Your task to perform on an android device: Search for the best selling book on Amazon. Image 0: 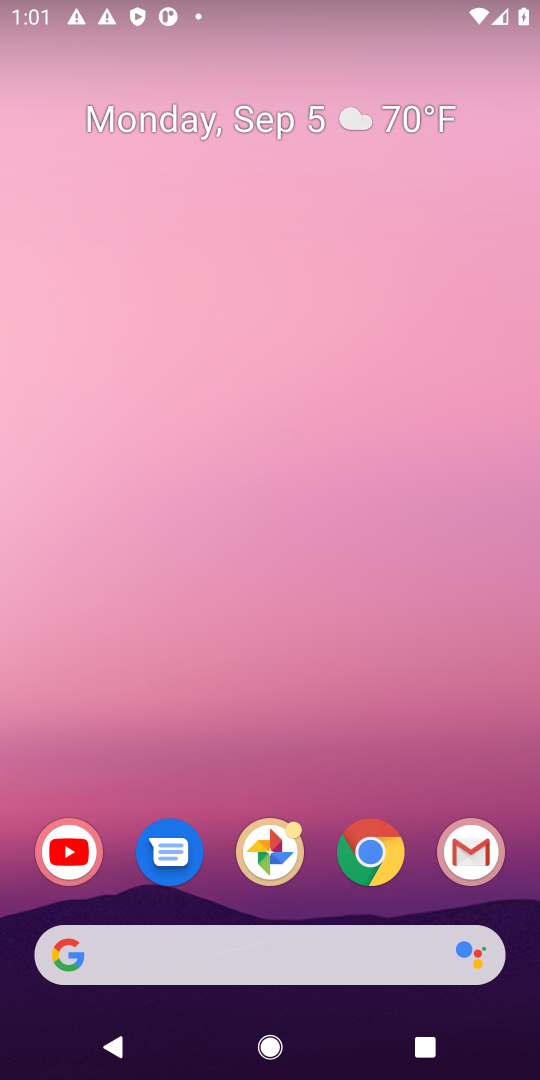
Step 0: click (375, 850)
Your task to perform on an android device: Search for the best selling book on Amazon. Image 1: 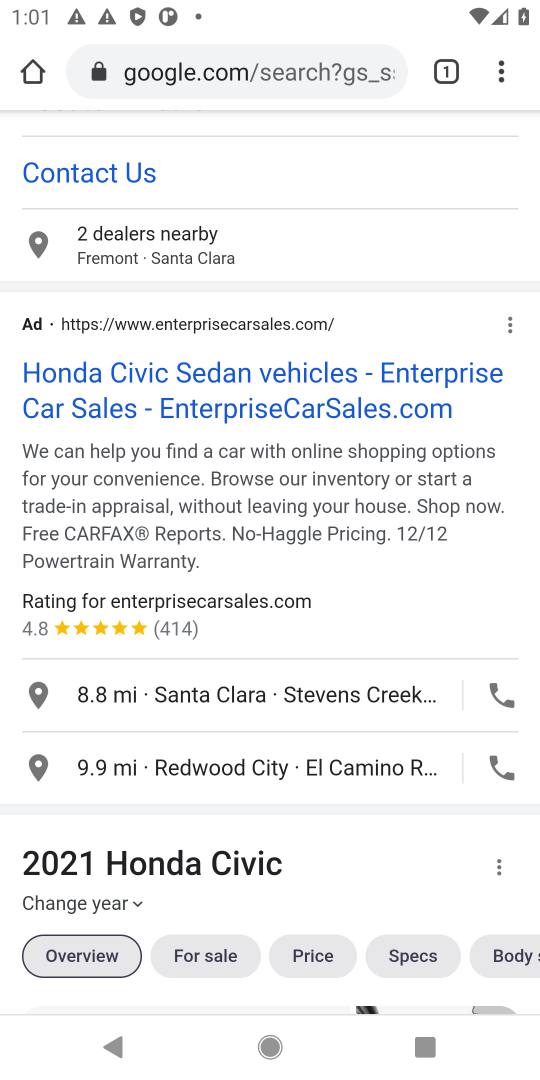
Step 1: click (373, 45)
Your task to perform on an android device: Search for the best selling book on Amazon. Image 2: 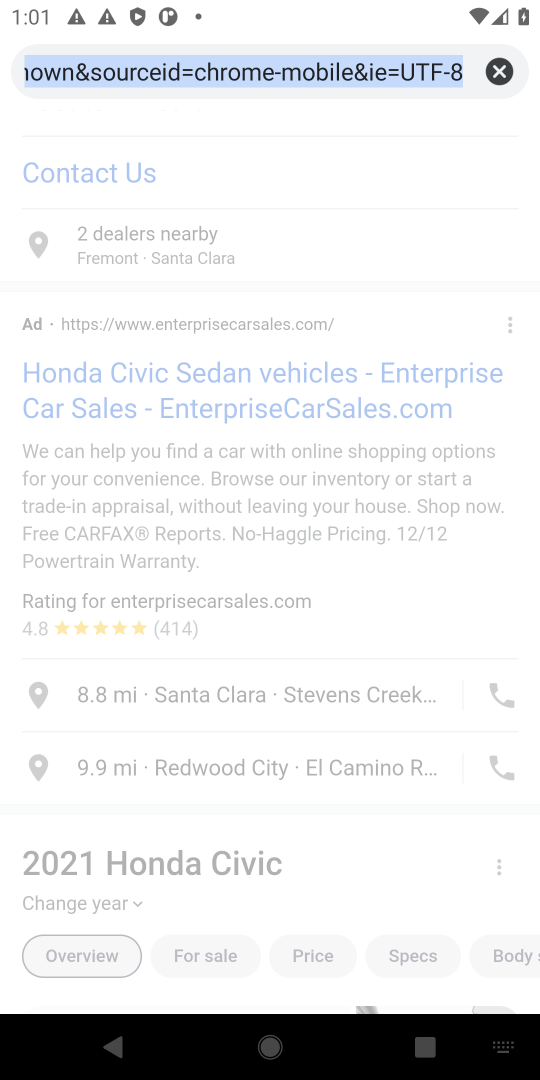
Step 2: click (499, 69)
Your task to perform on an android device: Search for the best selling book on Amazon. Image 3: 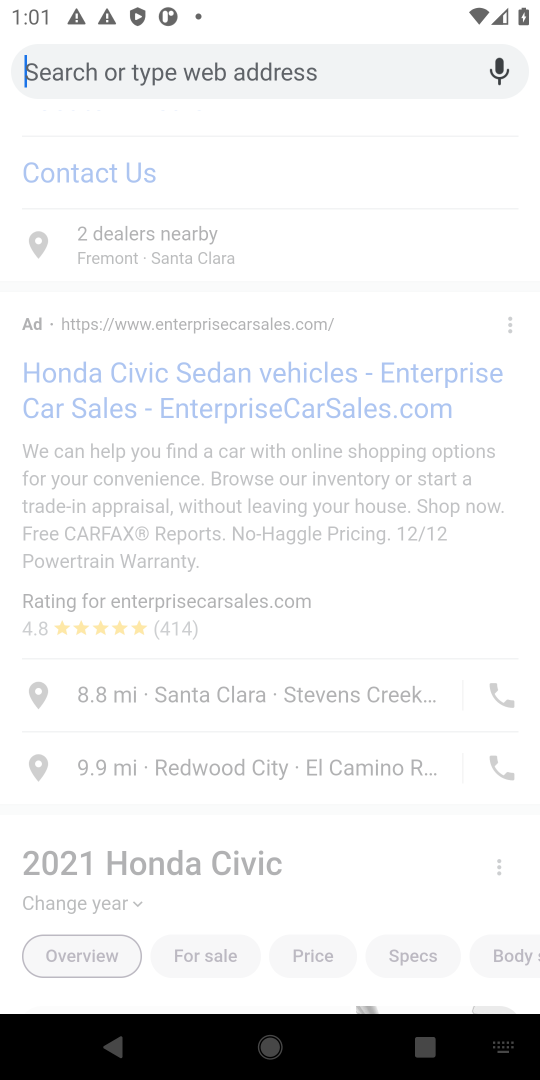
Step 3: type "Amazon"
Your task to perform on an android device: Search for the best selling book on Amazon. Image 4: 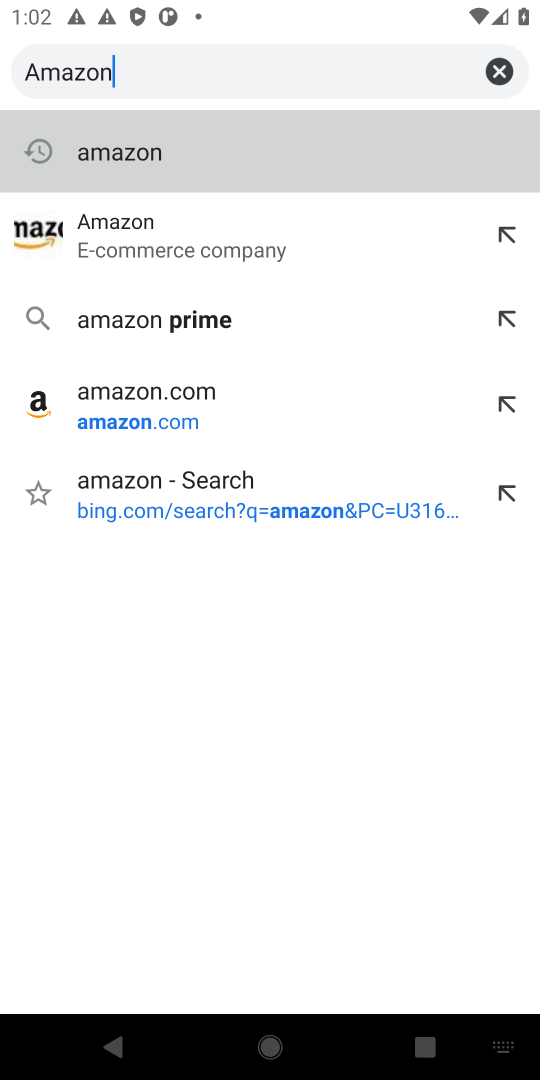
Step 4: click (122, 216)
Your task to perform on an android device: Search for the best selling book on Amazon. Image 5: 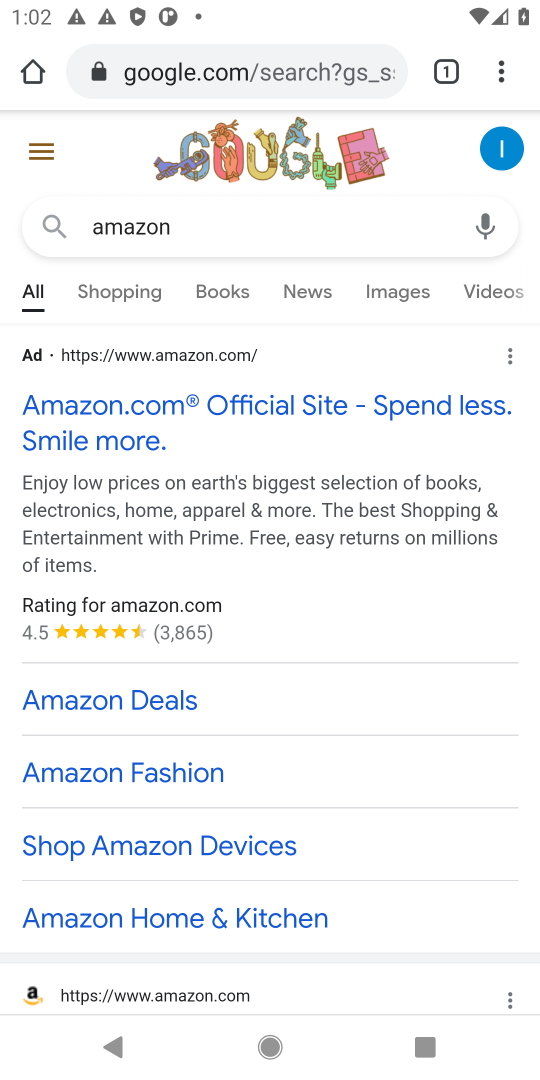
Step 5: click (71, 402)
Your task to perform on an android device: Search for the best selling book on Amazon. Image 6: 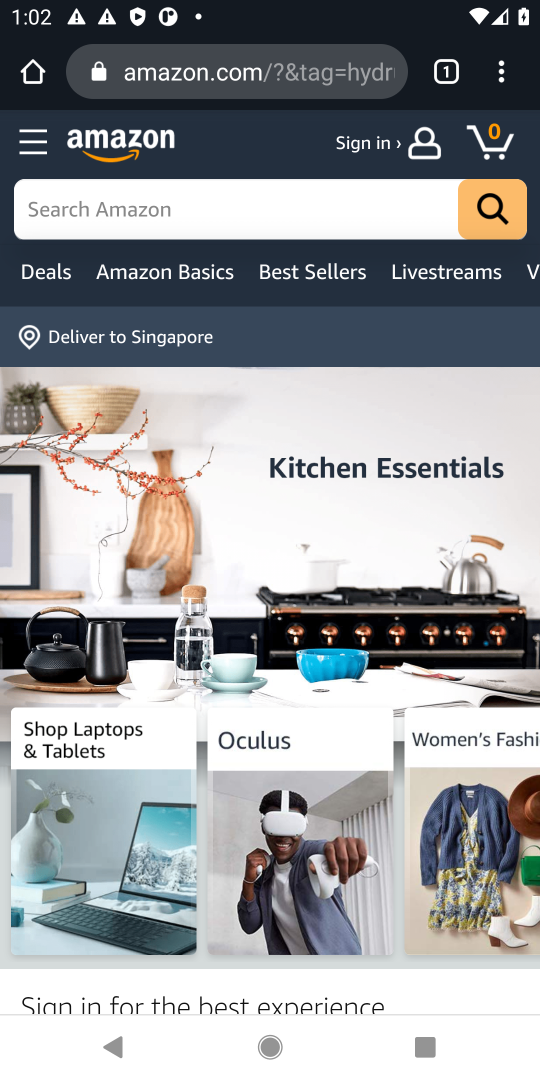
Step 6: click (158, 207)
Your task to perform on an android device: Search for the best selling book on Amazon. Image 7: 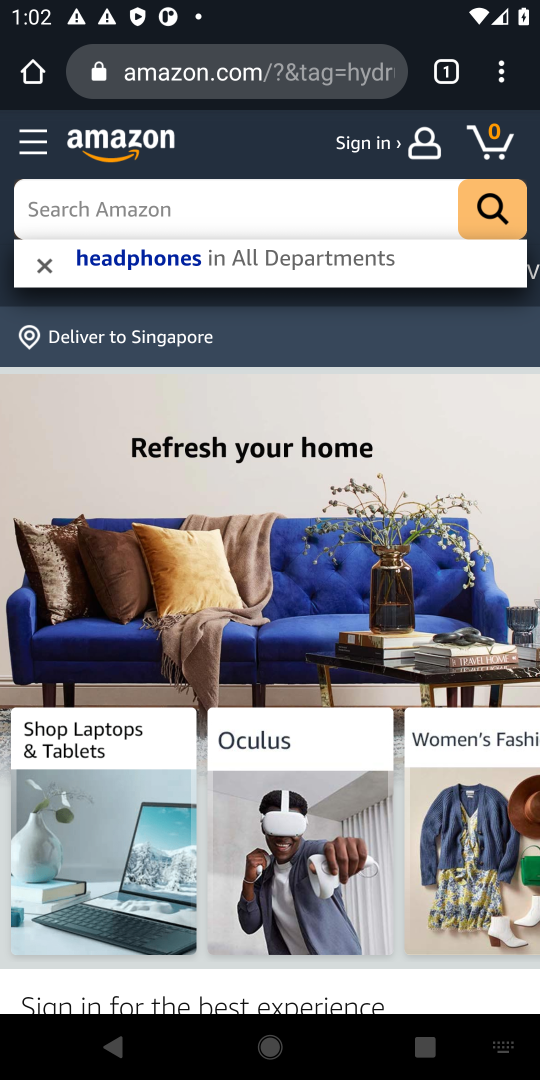
Step 7: type " best selling book"
Your task to perform on an android device: Search for the best selling book on Amazon. Image 8: 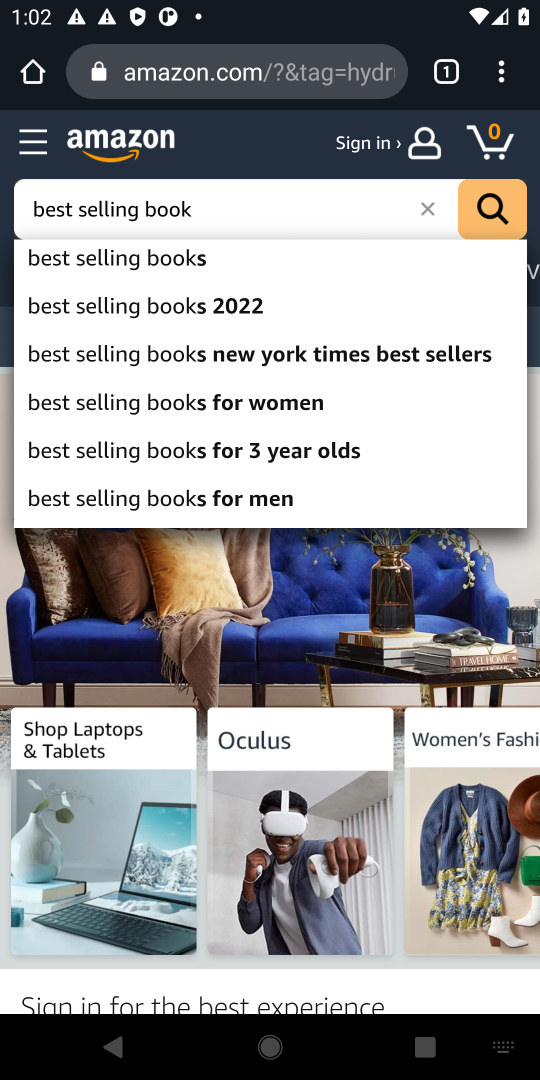
Step 8: click (95, 250)
Your task to perform on an android device: Search for the best selling book on Amazon. Image 9: 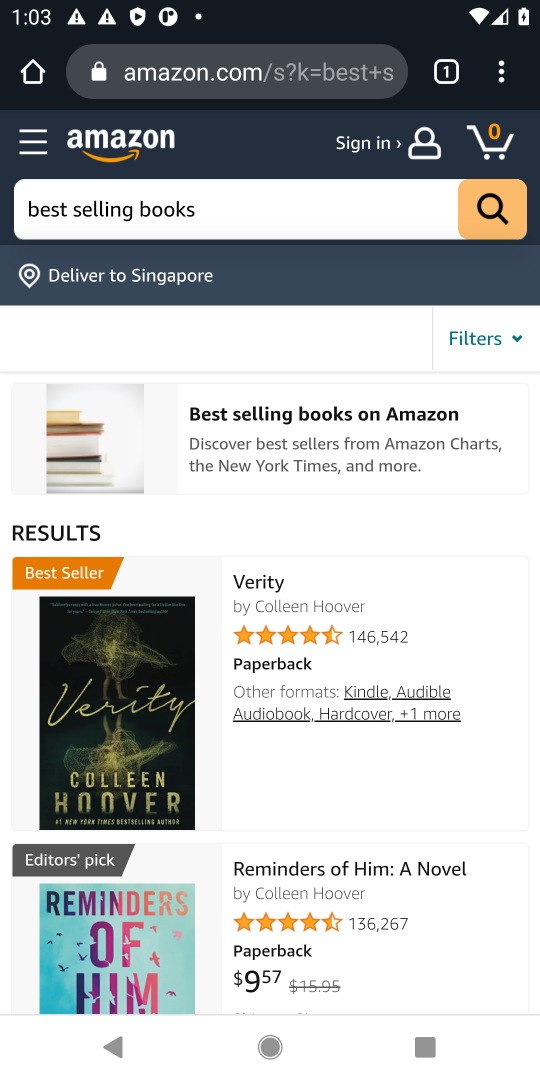
Step 9: drag from (214, 555) to (241, 223)
Your task to perform on an android device: Search for the best selling book on Amazon. Image 10: 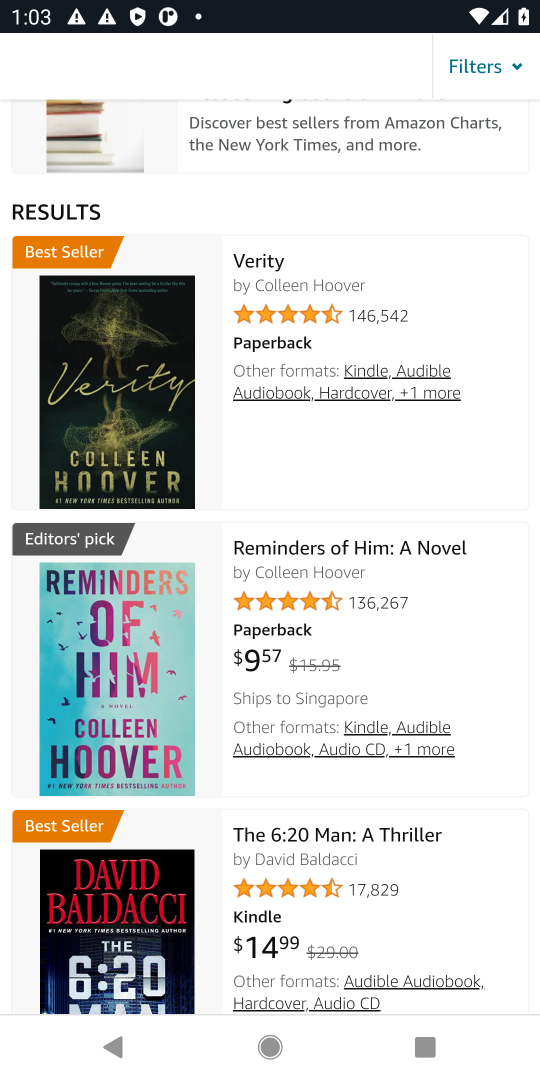
Step 10: drag from (214, 985) to (227, 518)
Your task to perform on an android device: Search for the best selling book on Amazon. Image 11: 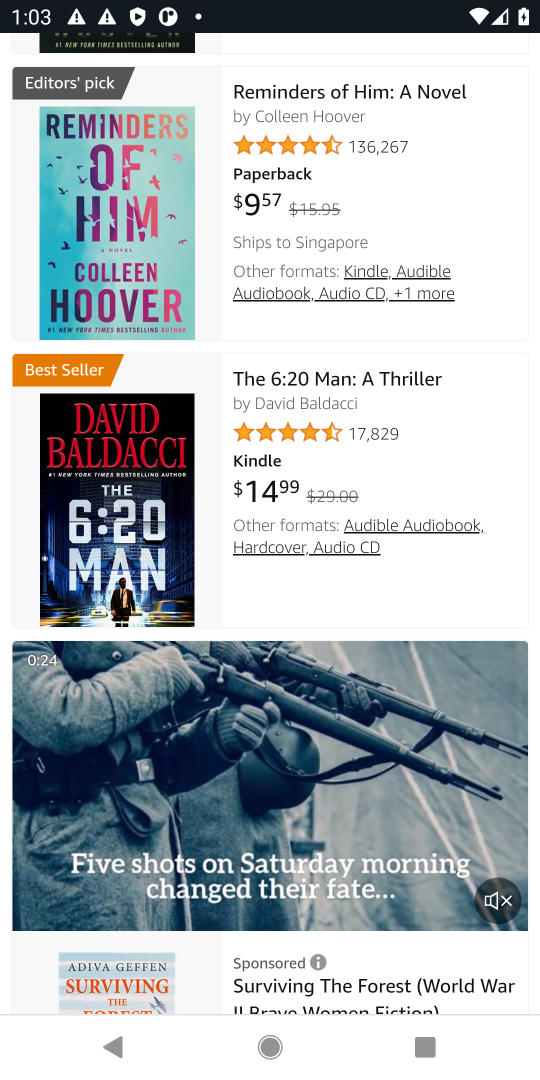
Step 11: click (213, 338)
Your task to perform on an android device: Search for the best selling book on Amazon. Image 12: 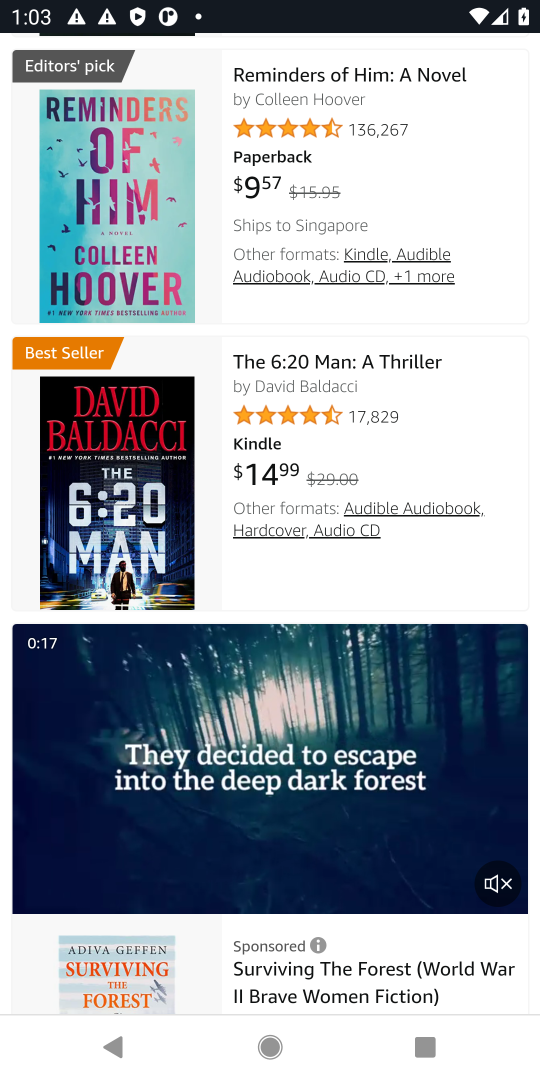
Step 12: task complete